Your task to perform on an android device: Search for pizza restaurants on Maps Image 0: 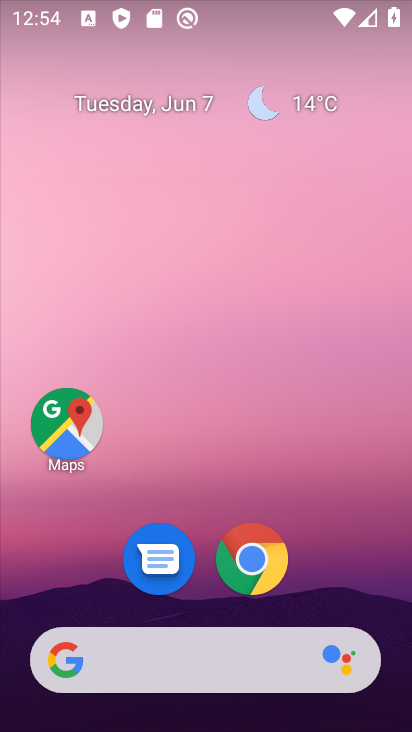
Step 0: click (71, 425)
Your task to perform on an android device: Search for pizza restaurants on Maps Image 1: 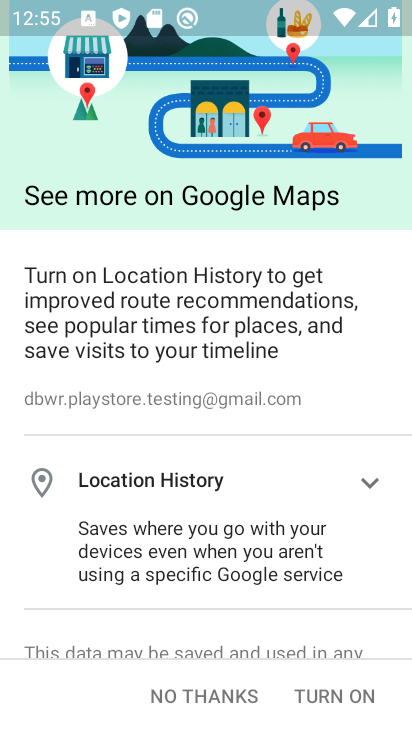
Step 1: click (210, 705)
Your task to perform on an android device: Search for pizza restaurants on Maps Image 2: 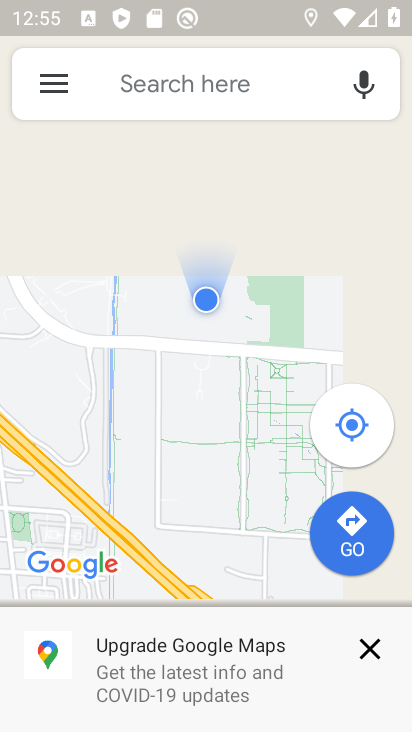
Step 2: click (173, 78)
Your task to perform on an android device: Search for pizza restaurants on Maps Image 3: 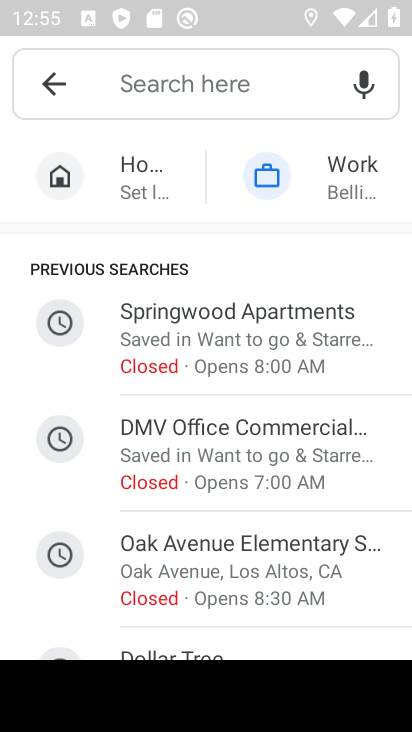
Step 3: type "pizza restaurants"
Your task to perform on an android device: Search for pizza restaurants on Maps Image 4: 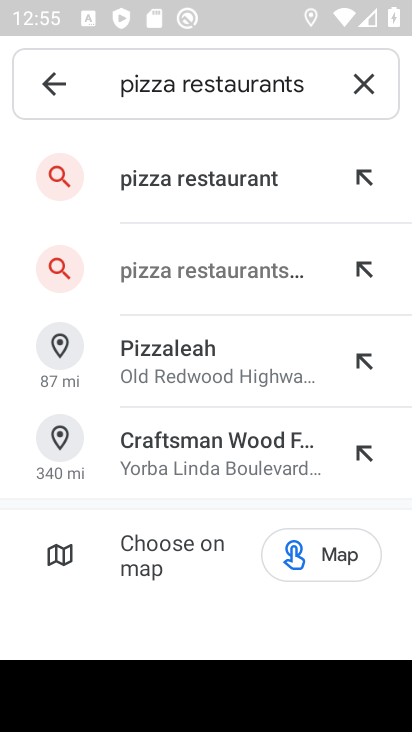
Step 4: click (173, 169)
Your task to perform on an android device: Search for pizza restaurants on Maps Image 5: 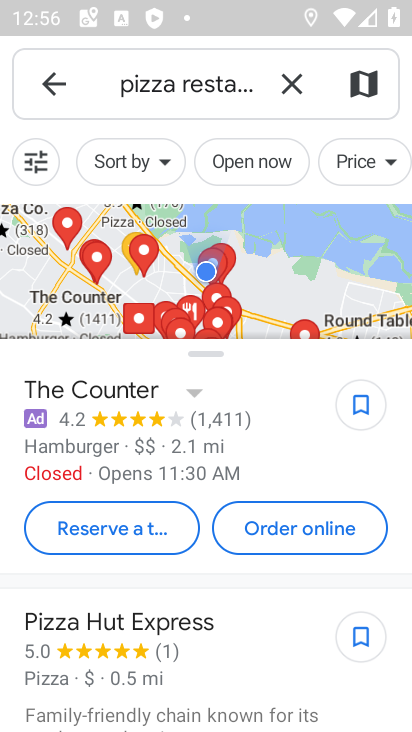
Step 5: task complete